Your task to perform on an android device: open app "Google Play Games" (install if not already installed) Image 0: 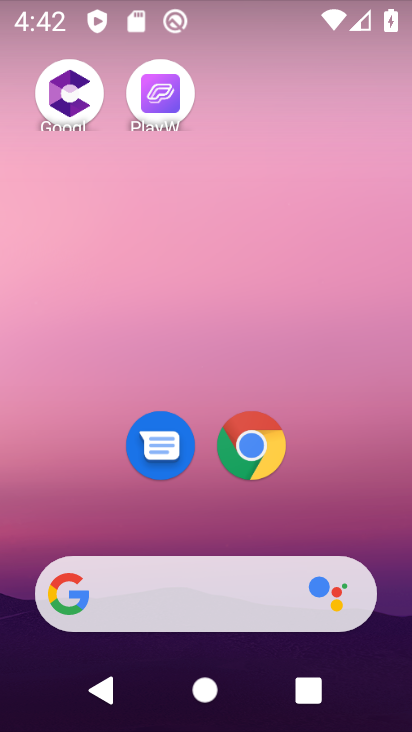
Step 0: drag from (175, 602) to (274, 35)
Your task to perform on an android device: open app "Google Play Games" (install if not already installed) Image 1: 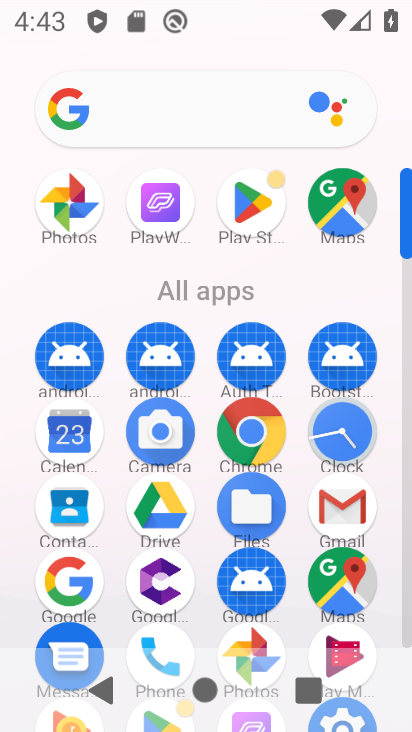
Step 1: click (253, 203)
Your task to perform on an android device: open app "Google Play Games" (install if not already installed) Image 2: 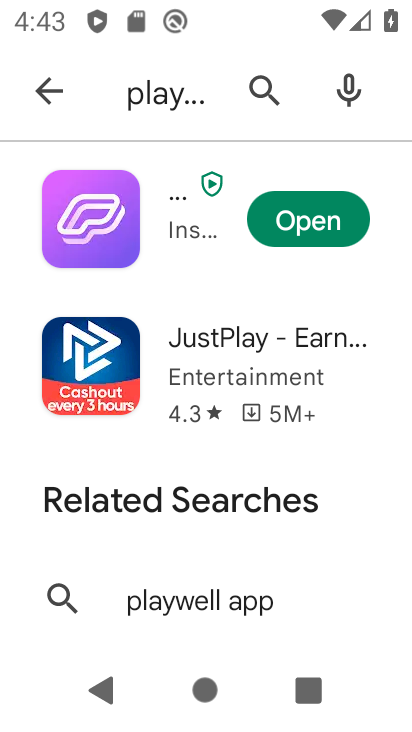
Step 2: press back button
Your task to perform on an android device: open app "Google Play Games" (install if not already installed) Image 3: 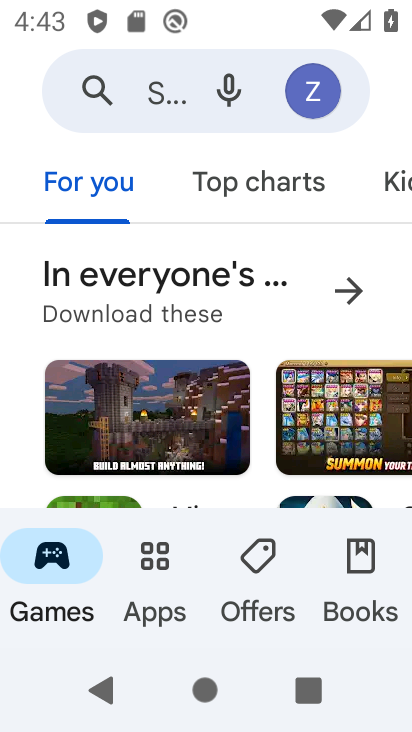
Step 3: click (165, 95)
Your task to perform on an android device: open app "Google Play Games" (install if not already installed) Image 4: 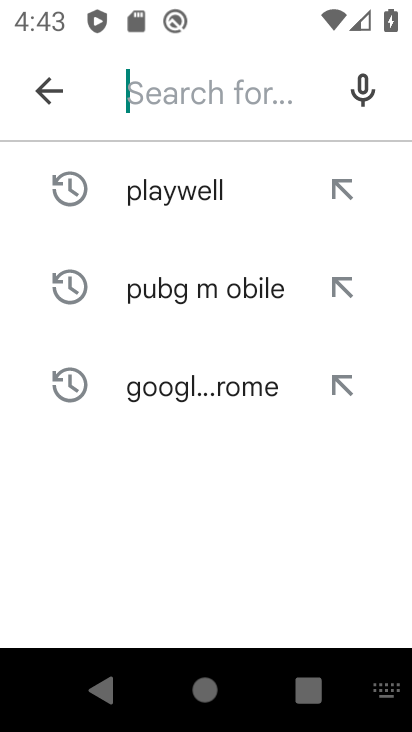
Step 4: type "Google Play Games"
Your task to perform on an android device: open app "Google Play Games" (install if not already installed) Image 5: 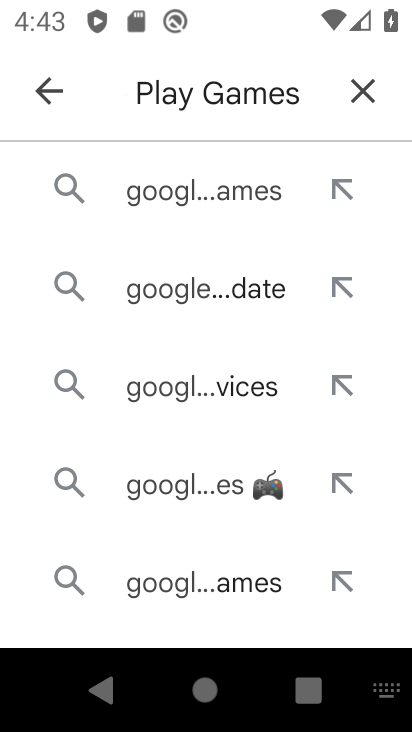
Step 5: click (250, 193)
Your task to perform on an android device: open app "Google Play Games" (install if not already installed) Image 6: 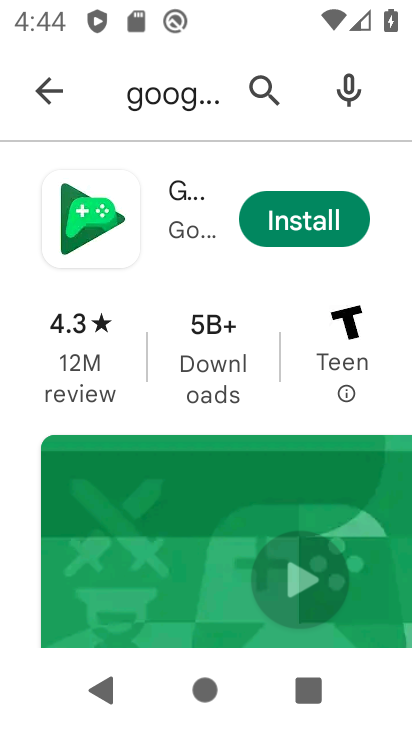
Step 6: click (280, 219)
Your task to perform on an android device: open app "Google Play Games" (install if not already installed) Image 7: 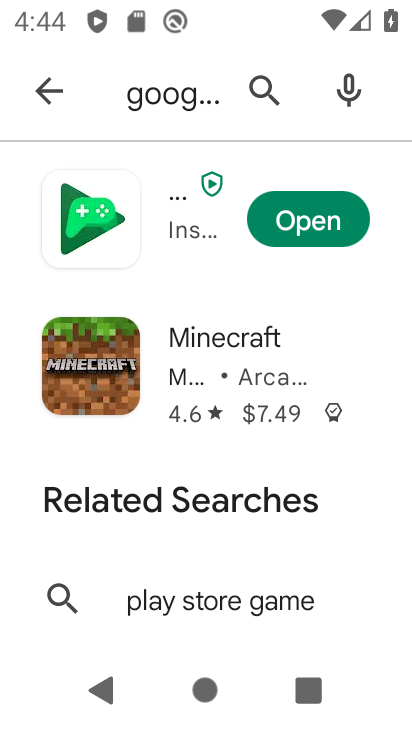
Step 7: click (292, 215)
Your task to perform on an android device: open app "Google Play Games" (install if not already installed) Image 8: 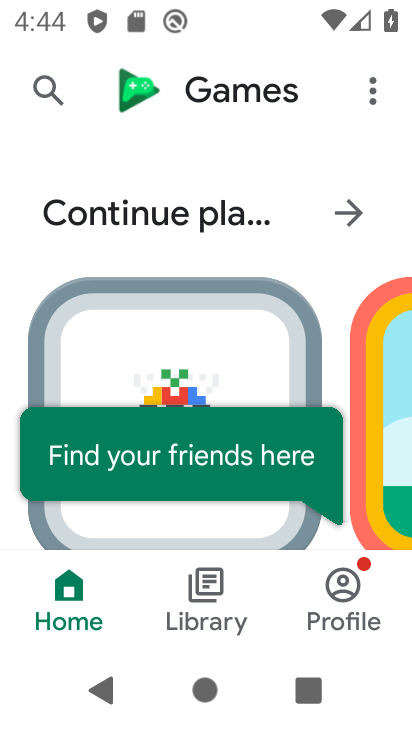
Step 8: task complete